Your task to perform on an android device: check the backup settings in the google photos Image 0: 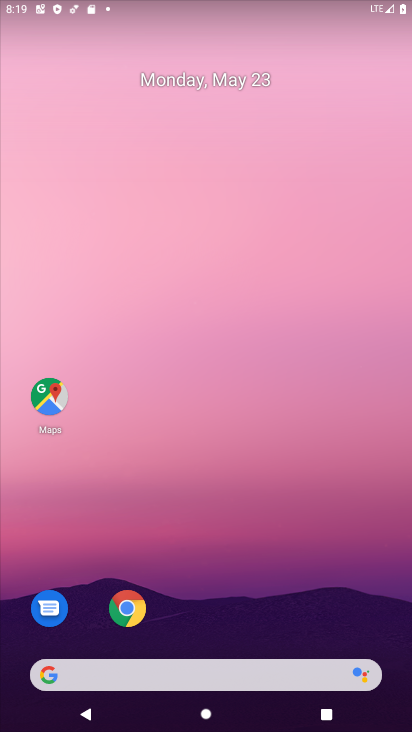
Step 0: drag from (219, 667) to (190, 494)
Your task to perform on an android device: check the backup settings in the google photos Image 1: 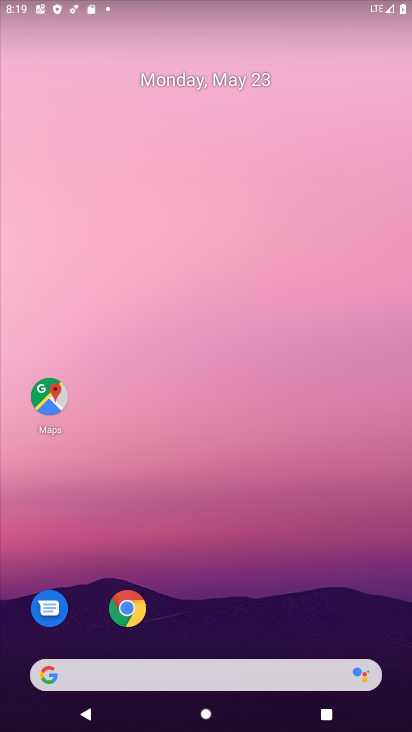
Step 1: drag from (217, 668) to (219, 159)
Your task to perform on an android device: check the backup settings in the google photos Image 2: 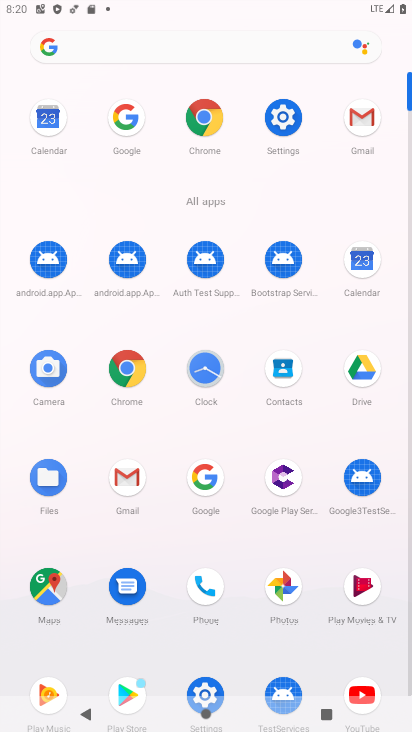
Step 2: click (282, 589)
Your task to perform on an android device: check the backup settings in the google photos Image 3: 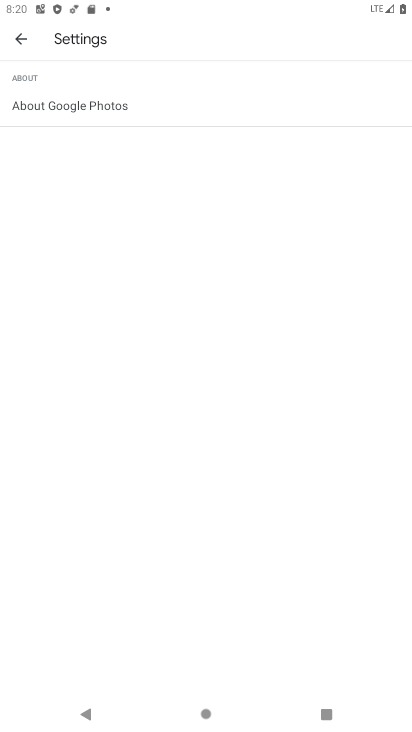
Step 3: click (24, 34)
Your task to perform on an android device: check the backup settings in the google photos Image 4: 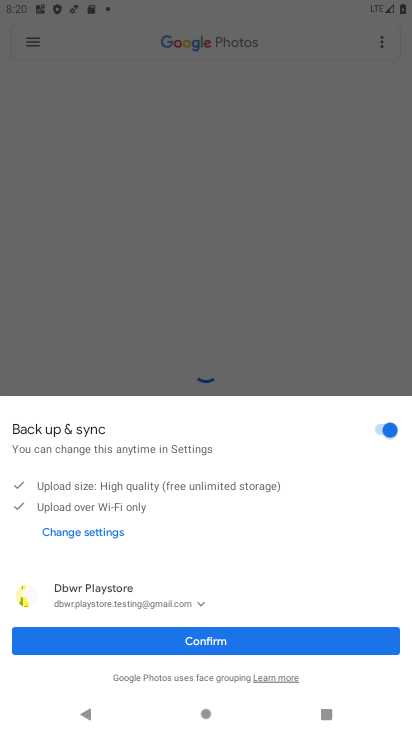
Step 4: click (229, 637)
Your task to perform on an android device: check the backup settings in the google photos Image 5: 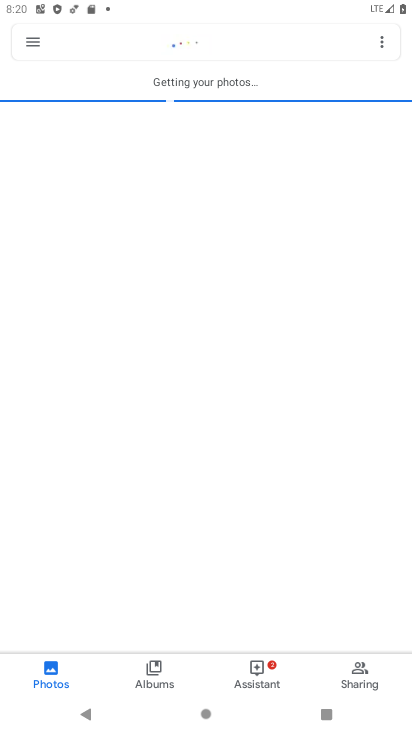
Step 5: click (32, 48)
Your task to perform on an android device: check the backup settings in the google photos Image 6: 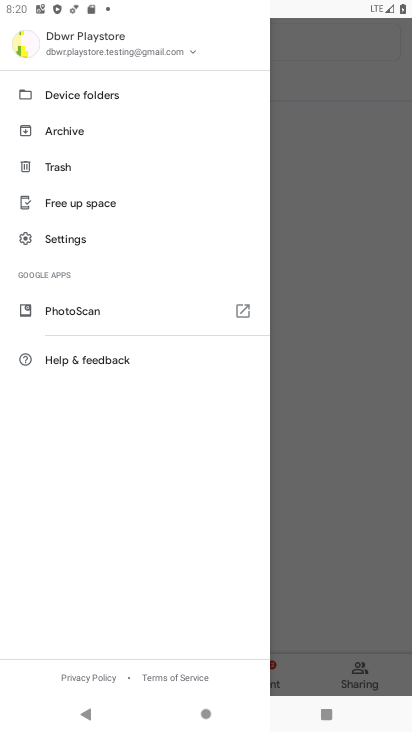
Step 6: click (69, 243)
Your task to perform on an android device: check the backup settings in the google photos Image 7: 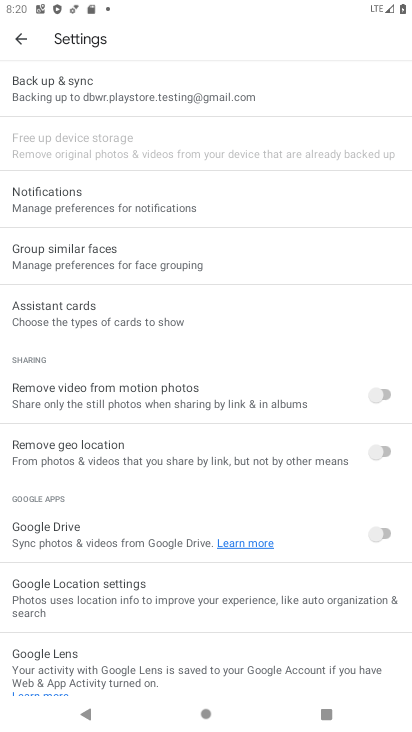
Step 7: click (94, 105)
Your task to perform on an android device: check the backup settings in the google photos Image 8: 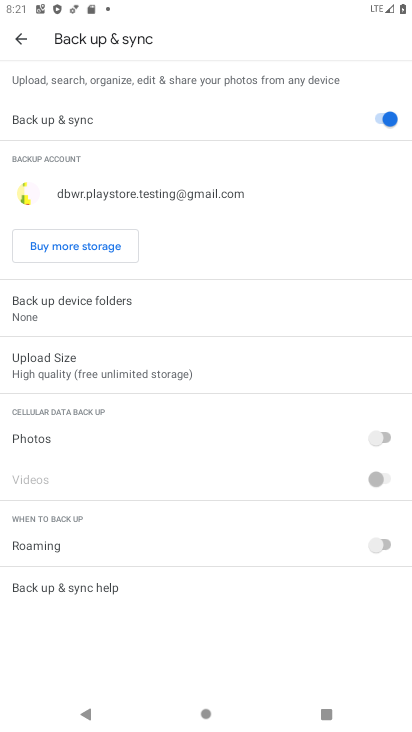
Step 8: task complete